Your task to perform on an android device: snooze an email in the gmail app Image 0: 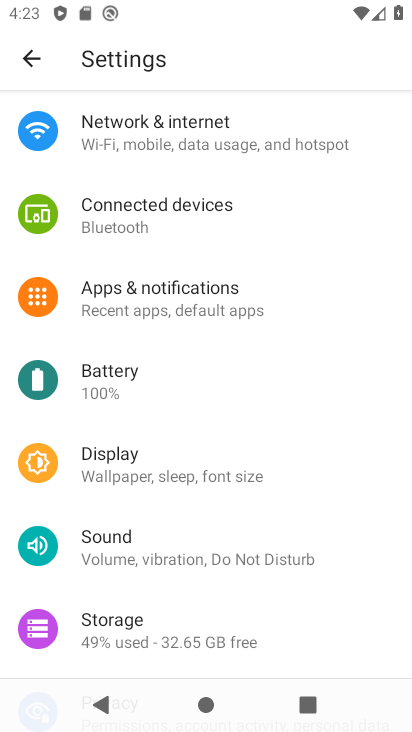
Step 0: press home button
Your task to perform on an android device: snooze an email in the gmail app Image 1: 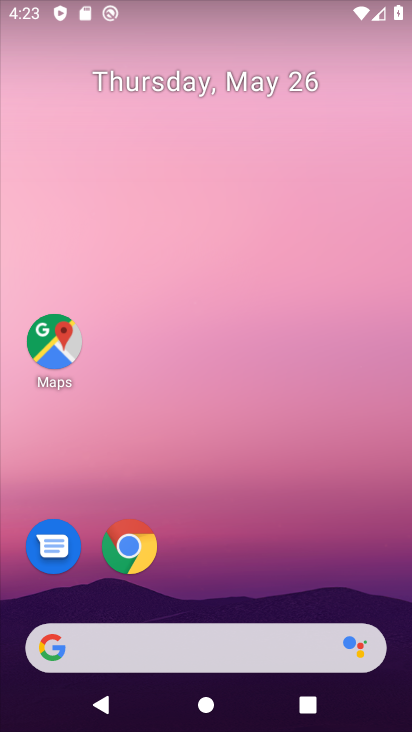
Step 1: drag from (224, 564) to (90, 136)
Your task to perform on an android device: snooze an email in the gmail app Image 2: 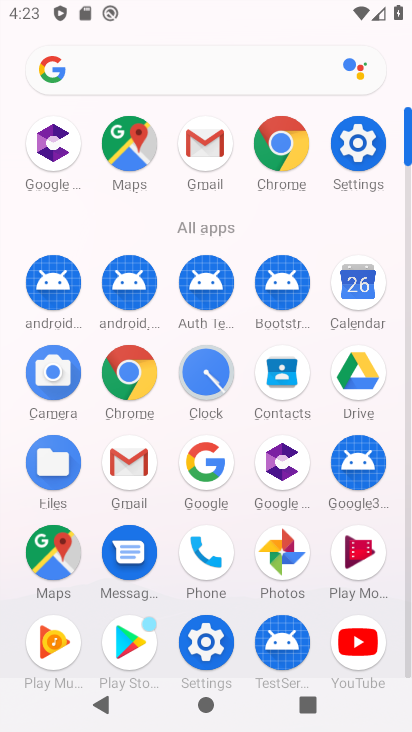
Step 2: click (200, 151)
Your task to perform on an android device: snooze an email in the gmail app Image 3: 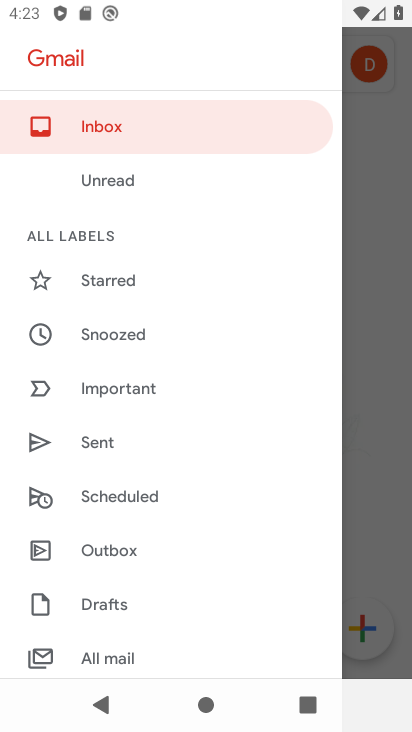
Step 3: click (153, 136)
Your task to perform on an android device: snooze an email in the gmail app Image 4: 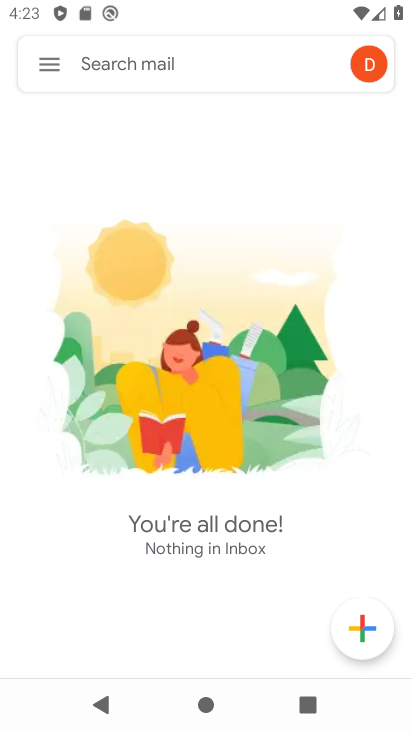
Step 4: task complete